Your task to perform on an android device: When is my next appointment? Image 0: 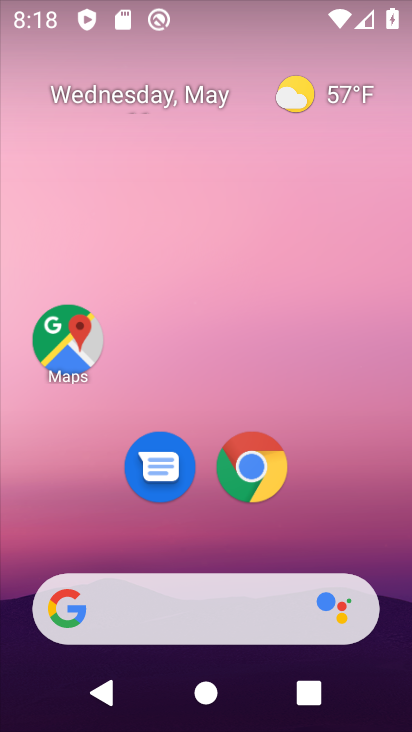
Step 0: drag from (368, 591) to (126, 13)
Your task to perform on an android device: When is my next appointment? Image 1: 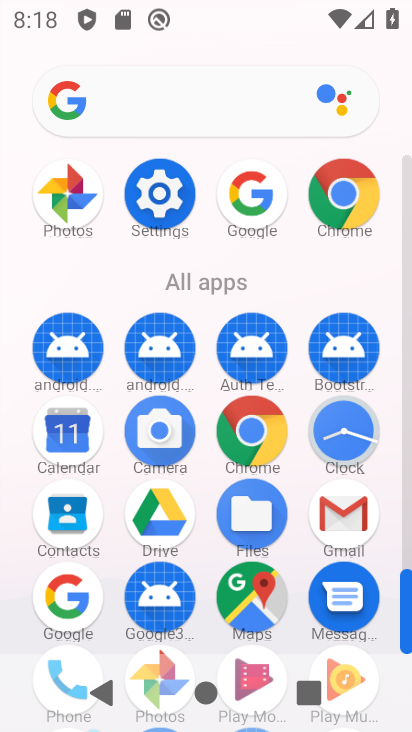
Step 1: click (75, 432)
Your task to perform on an android device: When is my next appointment? Image 2: 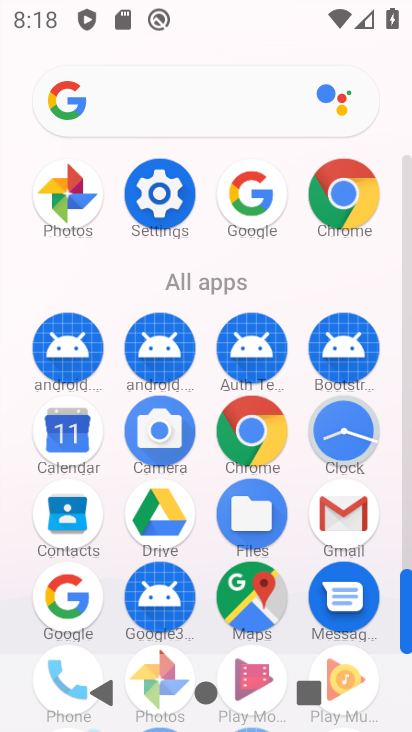
Step 2: click (75, 432)
Your task to perform on an android device: When is my next appointment? Image 3: 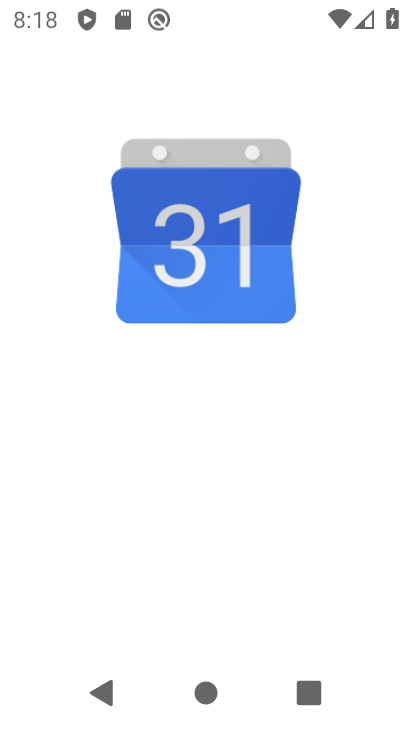
Step 3: click (53, 435)
Your task to perform on an android device: When is my next appointment? Image 4: 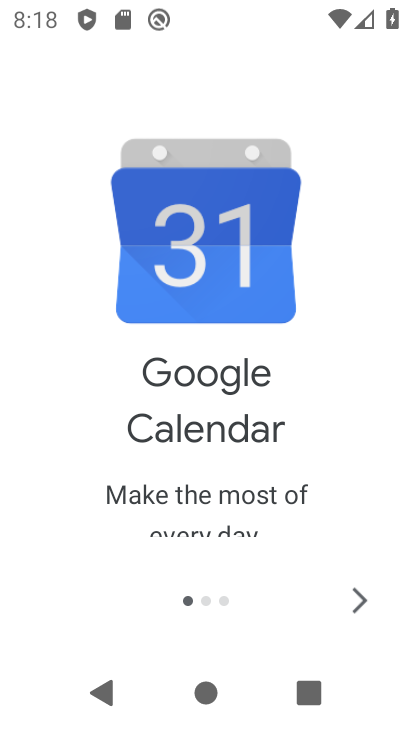
Step 4: click (352, 600)
Your task to perform on an android device: When is my next appointment? Image 5: 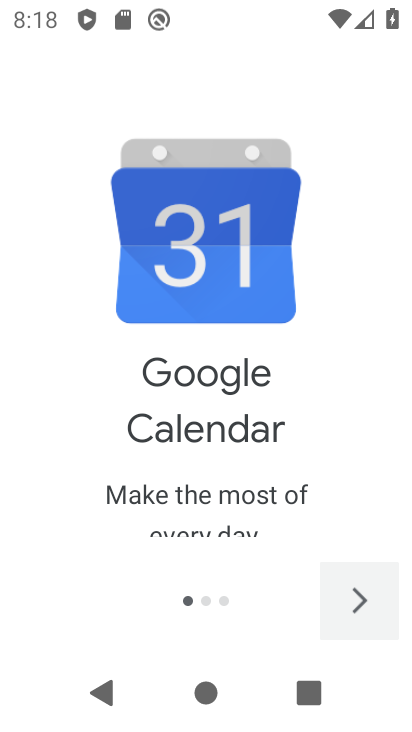
Step 5: click (359, 595)
Your task to perform on an android device: When is my next appointment? Image 6: 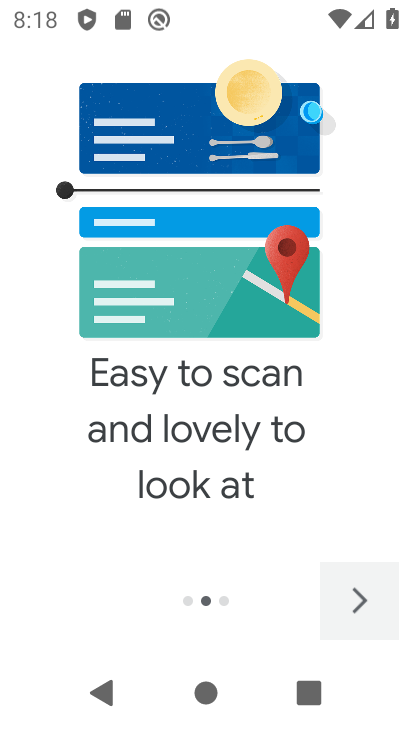
Step 6: click (358, 593)
Your task to perform on an android device: When is my next appointment? Image 7: 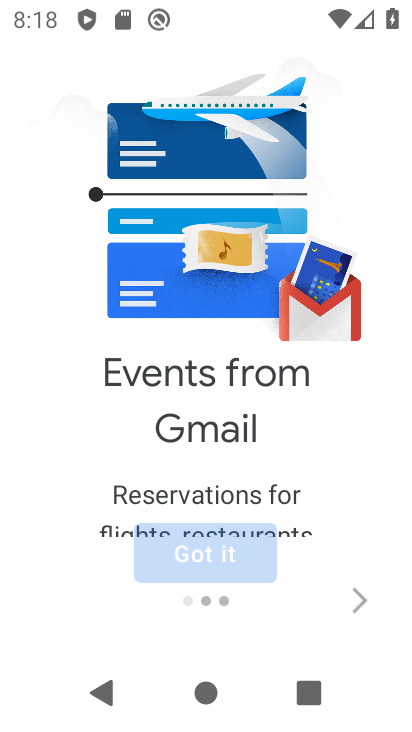
Step 7: click (358, 591)
Your task to perform on an android device: When is my next appointment? Image 8: 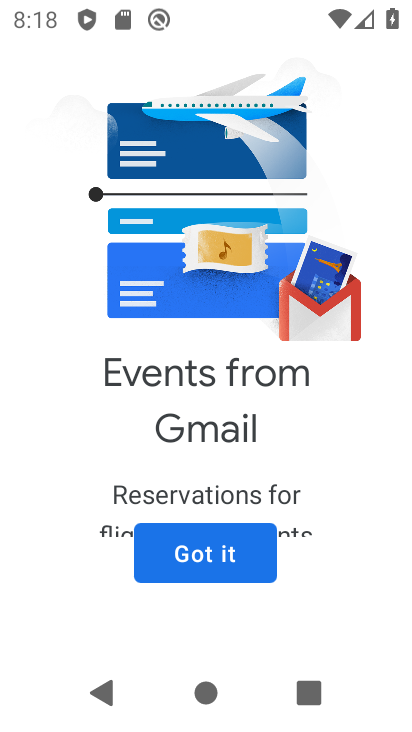
Step 8: click (356, 588)
Your task to perform on an android device: When is my next appointment? Image 9: 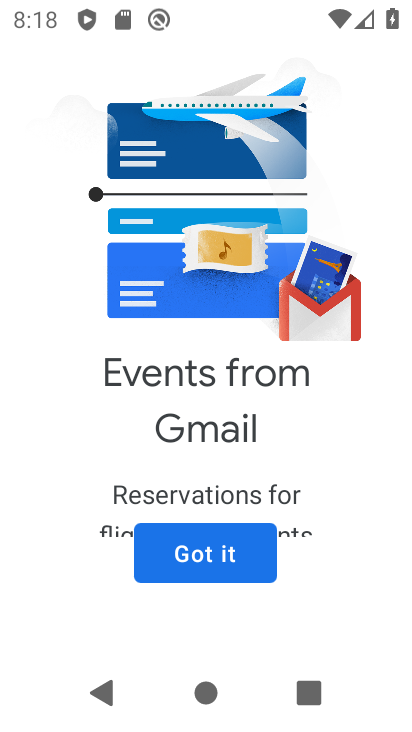
Step 9: click (352, 585)
Your task to perform on an android device: When is my next appointment? Image 10: 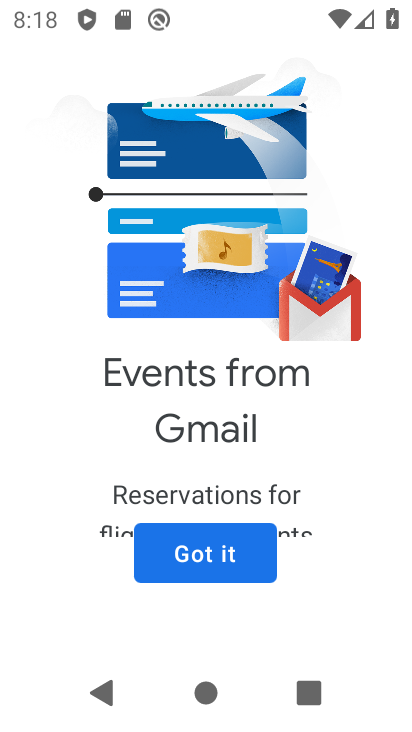
Step 10: click (223, 553)
Your task to perform on an android device: When is my next appointment? Image 11: 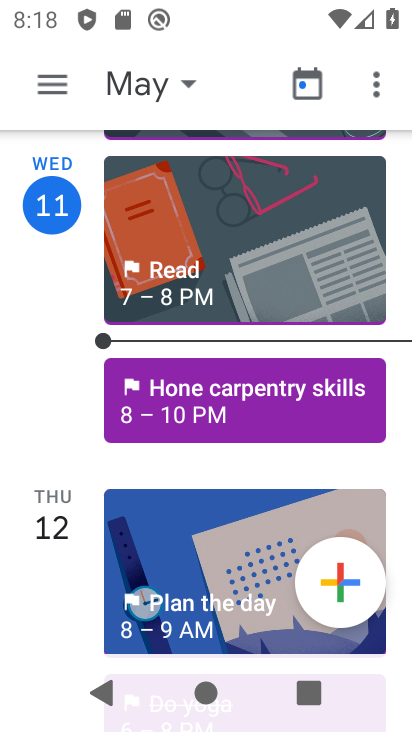
Step 11: drag from (198, 538) to (205, 179)
Your task to perform on an android device: When is my next appointment? Image 12: 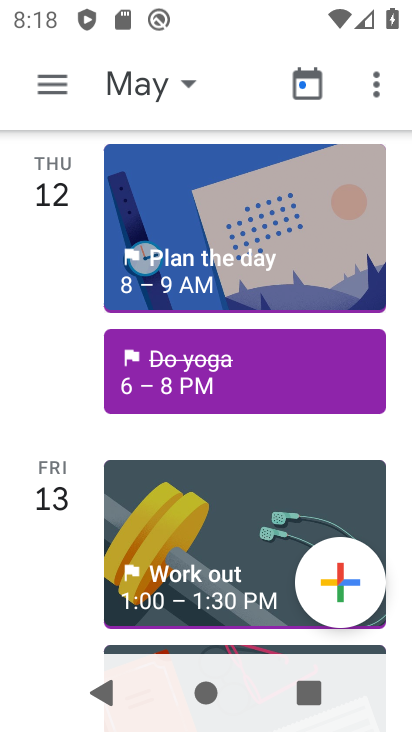
Step 12: drag from (206, 476) to (158, 106)
Your task to perform on an android device: When is my next appointment? Image 13: 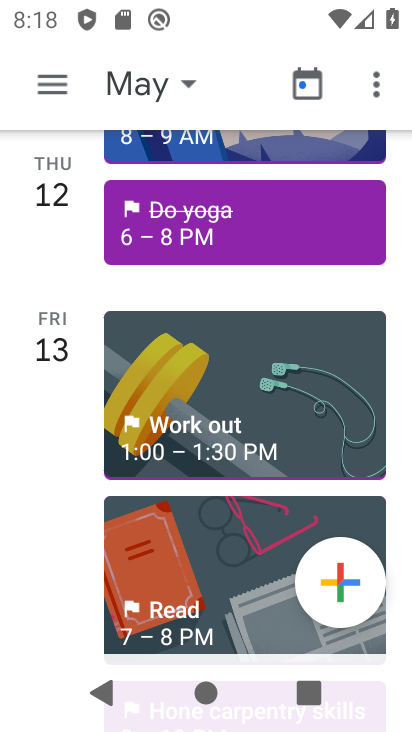
Step 13: drag from (165, 457) to (141, 103)
Your task to perform on an android device: When is my next appointment? Image 14: 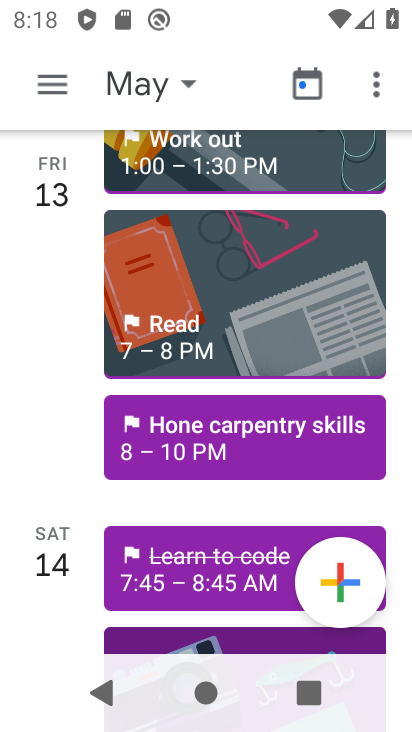
Step 14: drag from (190, 465) to (191, 107)
Your task to perform on an android device: When is my next appointment? Image 15: 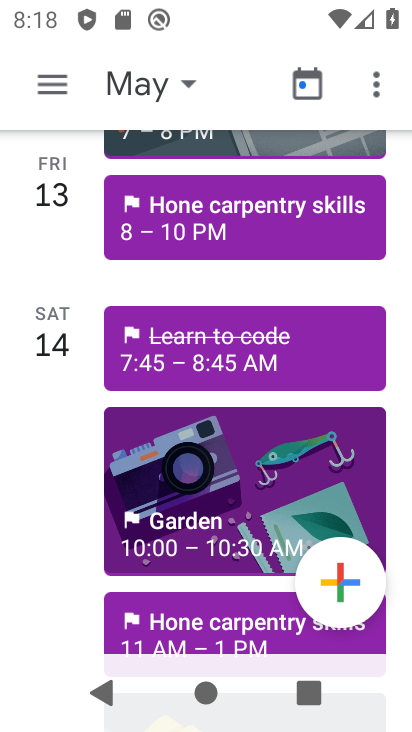
Step 15: drag from (158, 486) to (126, 153)
Your task to perform on an android device: When is my next appointment? Image 16: 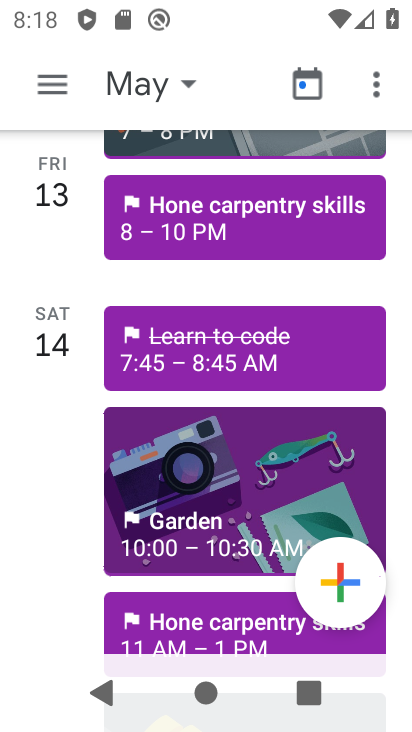
Step 16: drag from (216, 585) to (207, 80)
Your task to perform on an android device: When is my next appointment? Image 17: 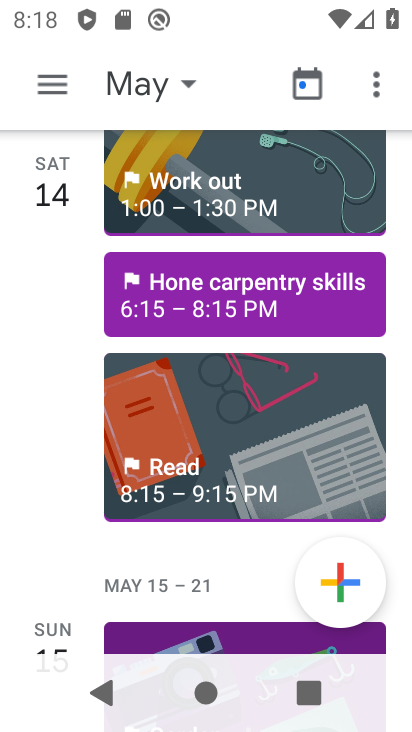
Step 17: drag from (174, 414) to (166, 18)
Your task to perform on an android device: When is my next appointment? Image 18: 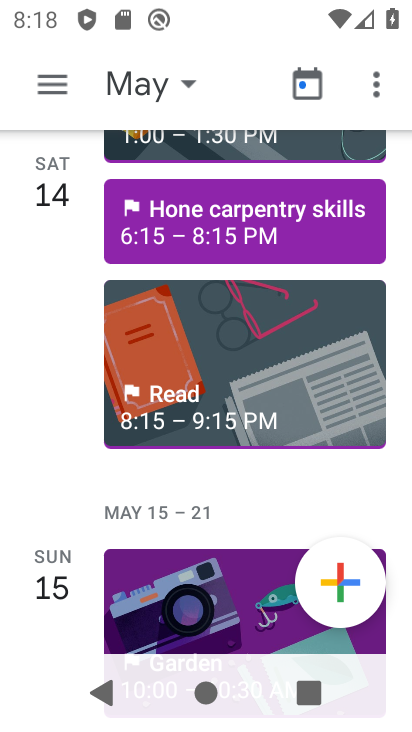
Step 18: drag from (147, 557) to (164, 29)
Your task to perform on an android device: When is my next appointment? Image 19: 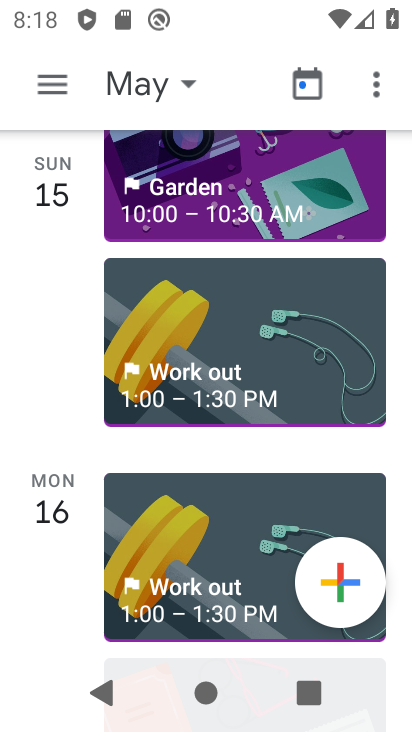
Step 19: drag from (151, 396) to (146, 50)
Your task to perform on an android device: When is my next appointment? Image 20: 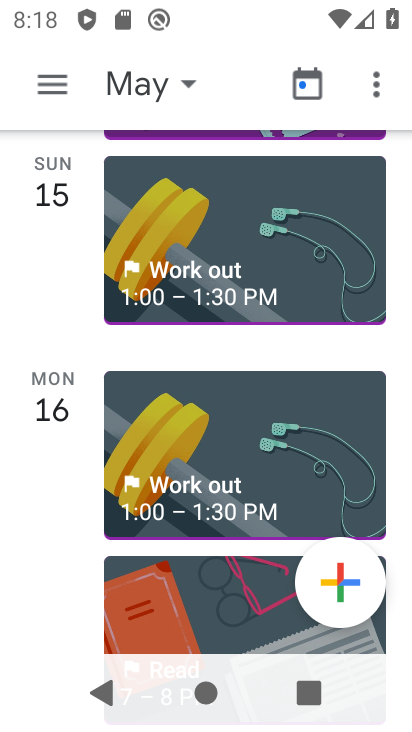
Step 20: drag from (183, 408) to (165, 67)
Your task to perform on an android device: When is my next appointment? Image 21: 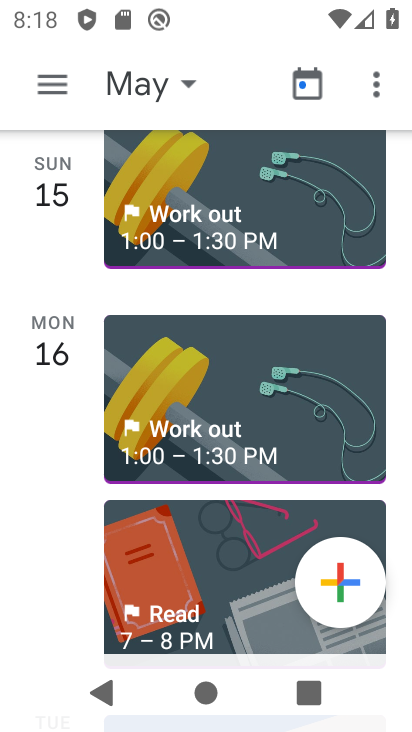
Step 21: drag from (182, 474) to (132, 121)
Your task to perform on an android device: When is my next appointment? Image 22: 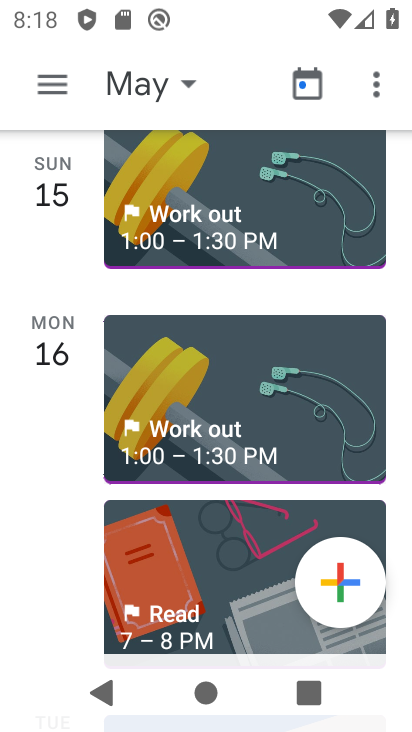
Step 22: drag from (209, 419) to (128, 38)
Your task to perform on an android device: When is my next appointment? Image 23: 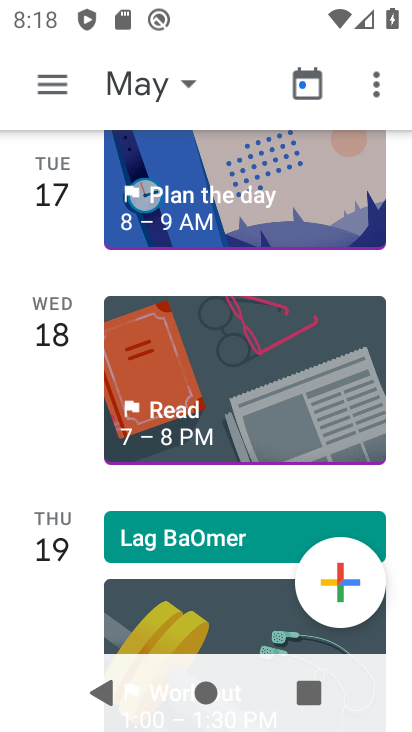
Step 23: drag from (183, 487) to (249, 0)
Your task to perform on an android device: When is my next appointment? Image 24: 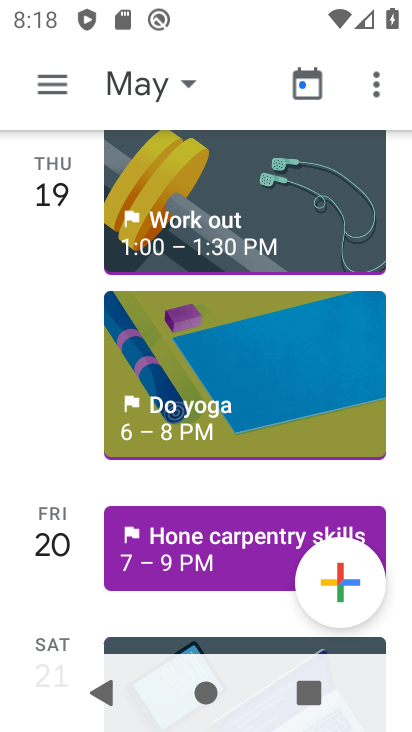
Step 24: click (188, 10)
Your task to perform on an android device: When is my next appointment? Image 25: 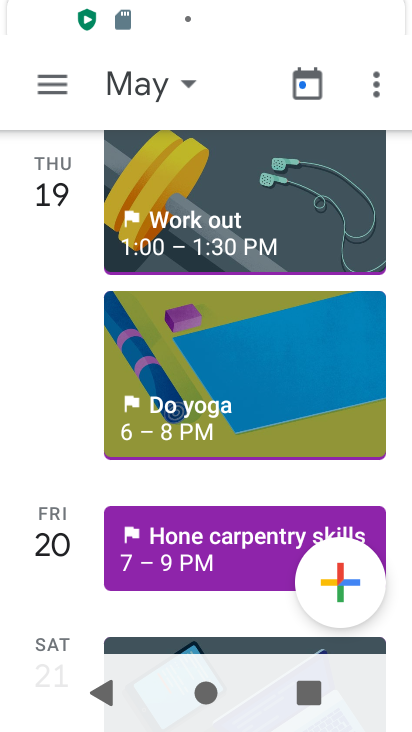
Step 25: task complete